Your task to perform on an android device: turn on sleep mode Image 0: 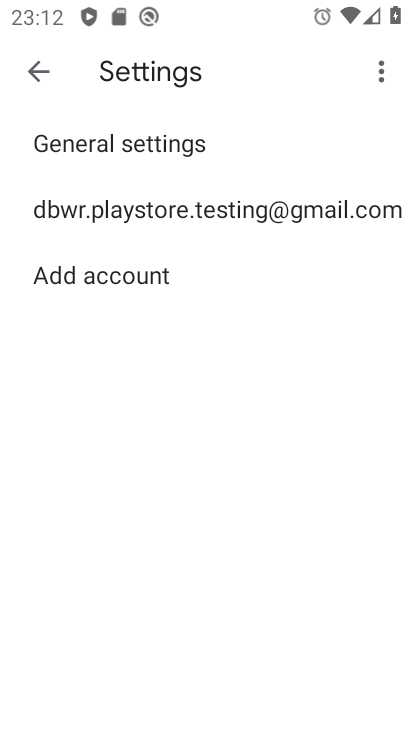
Step 0: press home button
Your task to perform on an android device: turn on sleep mode Image 1: 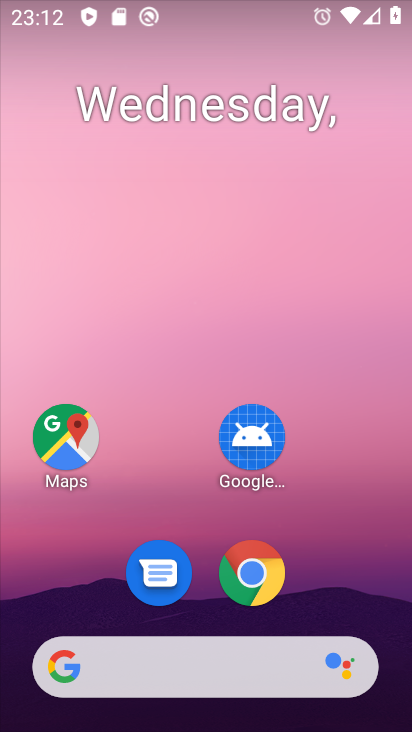
Step 1: drag from (156, 494) to (185, 54)
Your task to perform on an android device: turn on sleep mode Image 2: 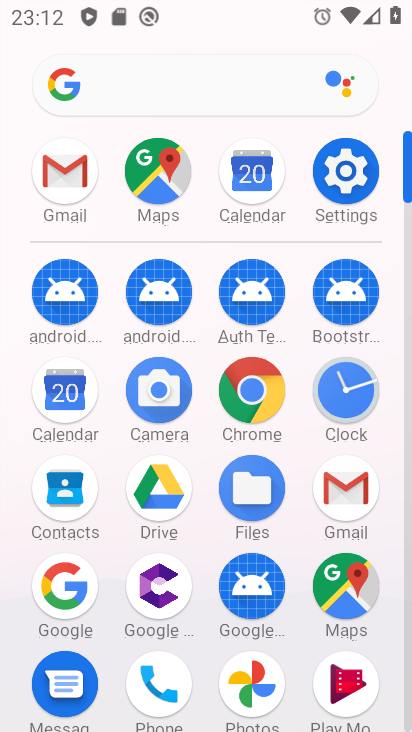
Step 2: click (347, 173)
Your task to perform on an android device: turn on sleep mode Image 3: 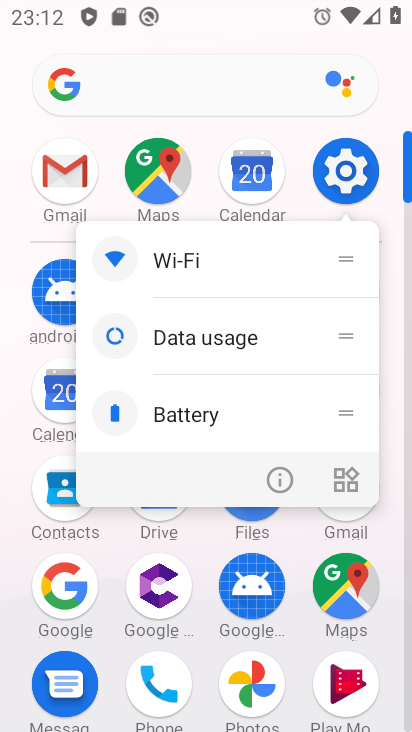
Step 3: click (347, 173)
Your task to perform on an android device: turn on sleep mode Image 4: 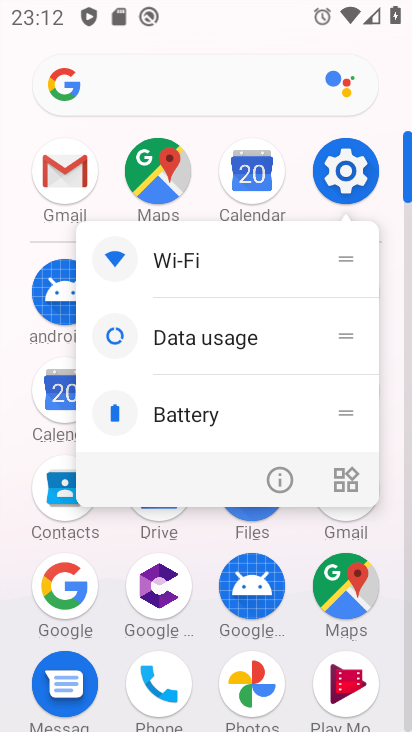
Step 4: click (347, 173)
Your task to perform on an android device: turn on sleep mode Image 5: 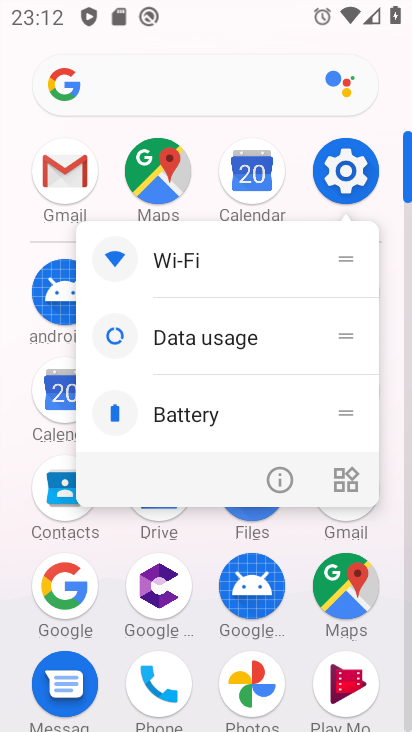
Step 5: click (342, 169)
Your task to perform on an android device: turn on sleep mode Image 6: 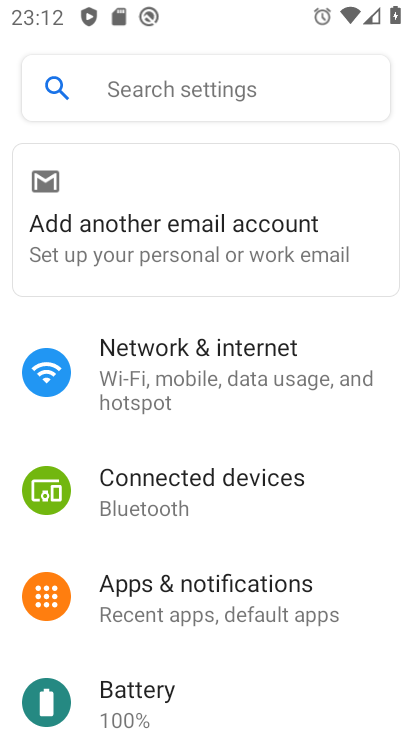
Step 6: drag from (252, 451) to (303, 327)
Your task to perform on an android device: turn on sleep mode Image 7: 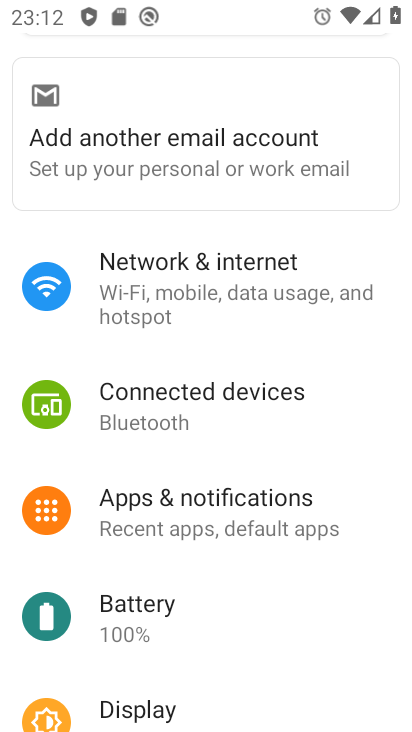
Step 7: drag from (192, 572) to (244, 462)
Your task to perform on an android device: turn on sleep mode Image 8: 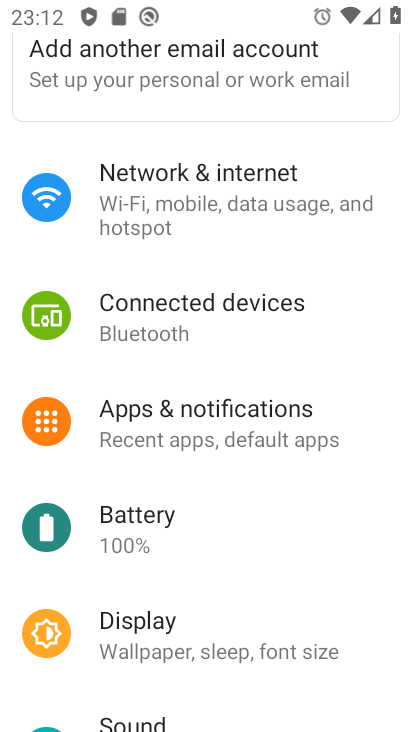
Step 8: drag from (219, 604) to (245, 493)
Your task to perform on an android device: turn on sleep mode Image 9: 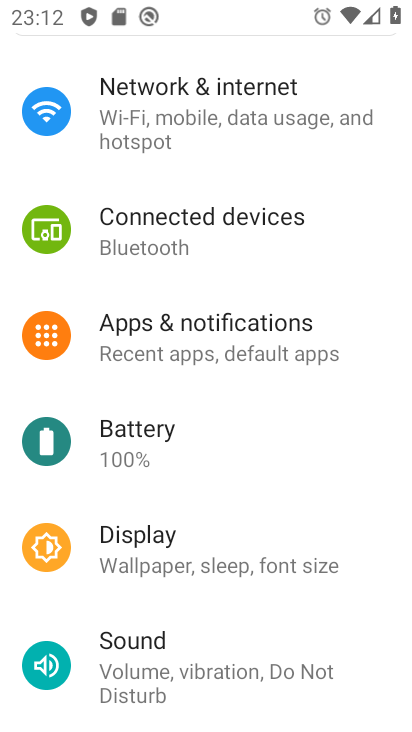
Step 9: click (269, 552)
Your task to perform on an android device: turn on sleep mode Image 10: 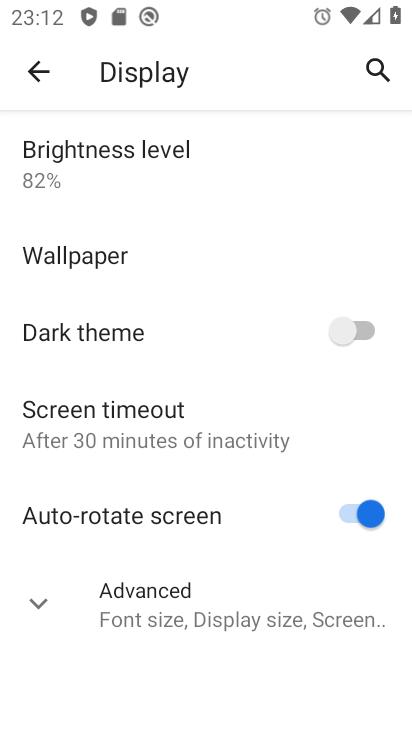
Step 10: click (230, 615)
Your task to perform on an android device: turn on sleep mode Image 11: 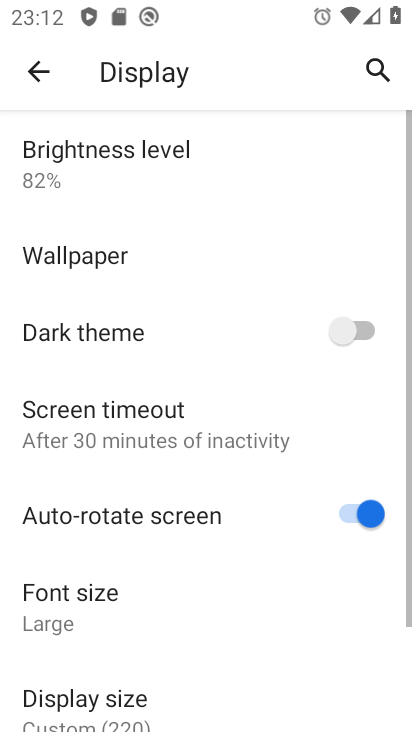
Step 11: task complete